Your task to perform on an android device: see creations saved in the google photos Image 0: 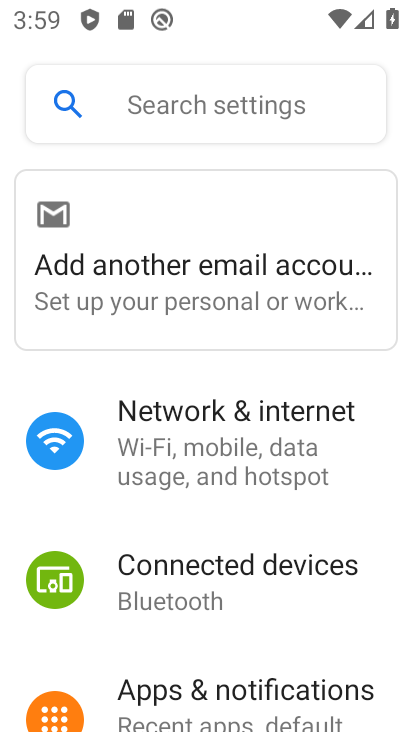
Step 0: press back button
Your task to perform on an android device: see creations saved in the google photos Image 1: 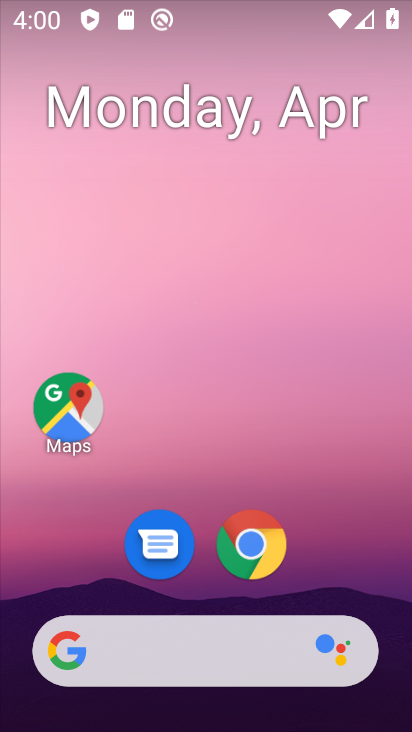
Step 1: drag from (129, 524) to (294, 1)
Your task to perform on an android device: see creations saved in the google photos Image 2: 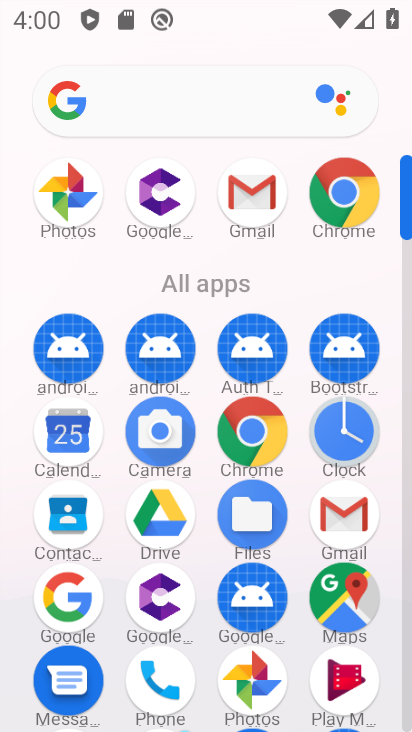
Step 2: click (266, 687)
Your task to perform on an android device: see creations saved in the google photos Image 3: 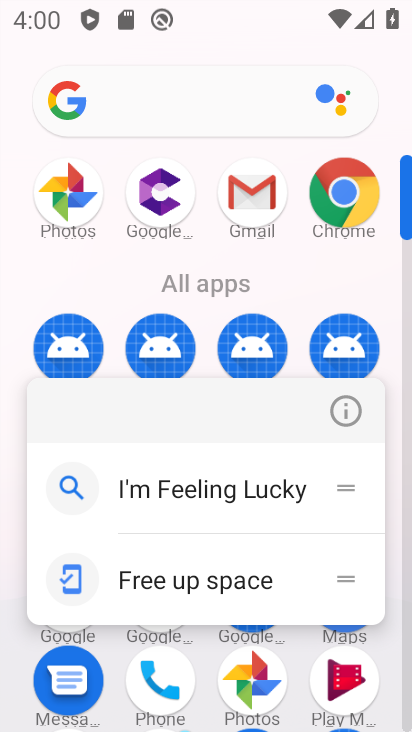
Step 3: click (237, 661)
Your task to perform on an android device: see creations saved in the google photos Image 4: 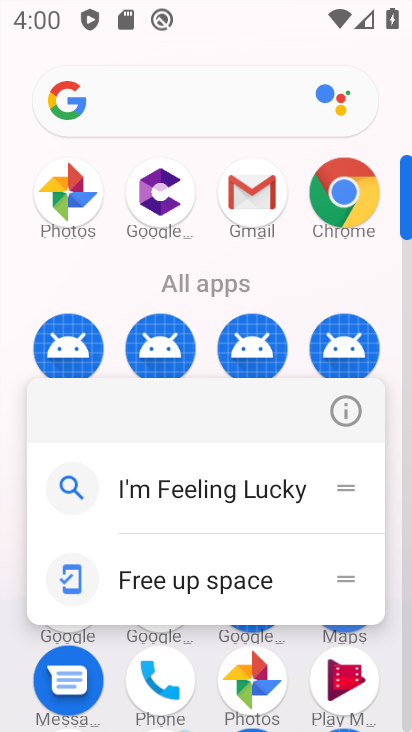
Step 4: click (260, 689)
Your task to perform on an android device: see creations saved in the google photos Image 5: 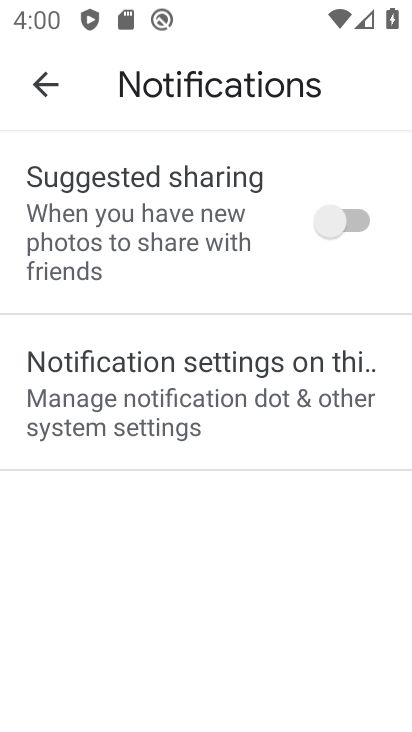
Step 5: click (54, 92)
Your task to perform on an android device: see creations saved in the google photos Image 6: 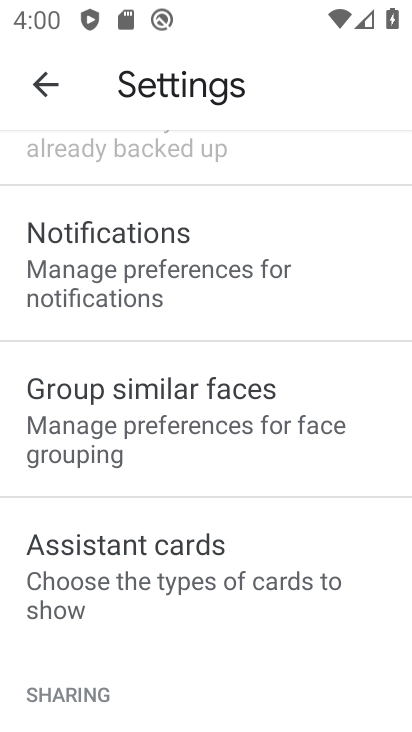
Step 6: click (57, 95)
Your task to perform on an android device: see creations saved in the google photos Image 7: 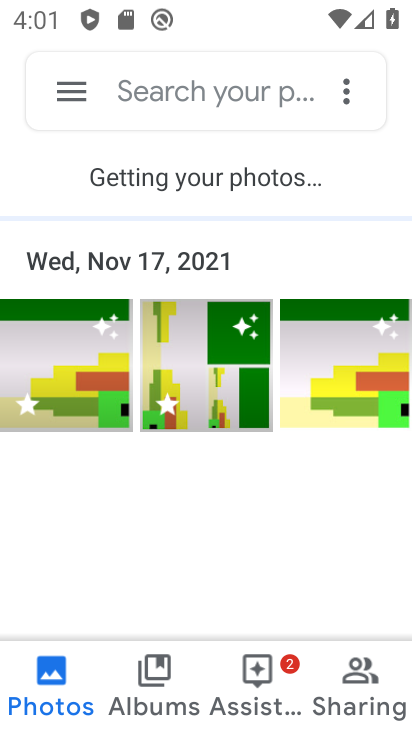
Step 7: click (169, 101)
Your task to perform on an android device: see creations saved in the google photos Image 8: 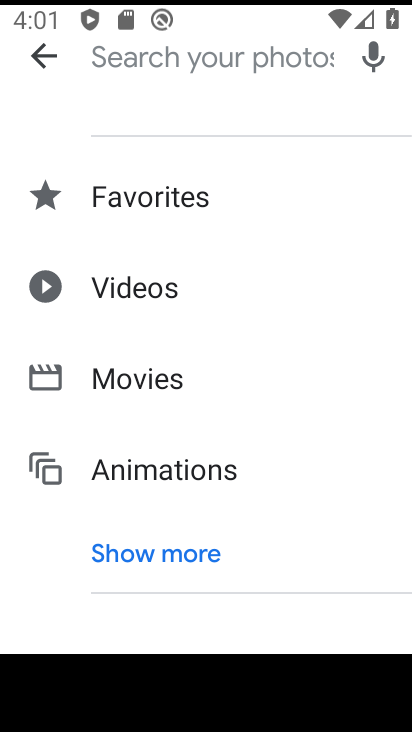
Step 8: click (187, 562)
Your task to perform on an android device: see creations saved in the google photos Image 9: 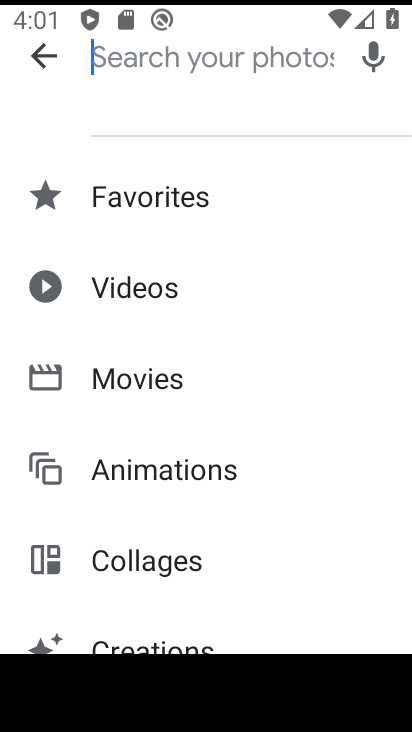
Step 9: drag from (189, 607) to (266, 278)
Your task to perform on an android device: see creations saved in the google photos Image 10: 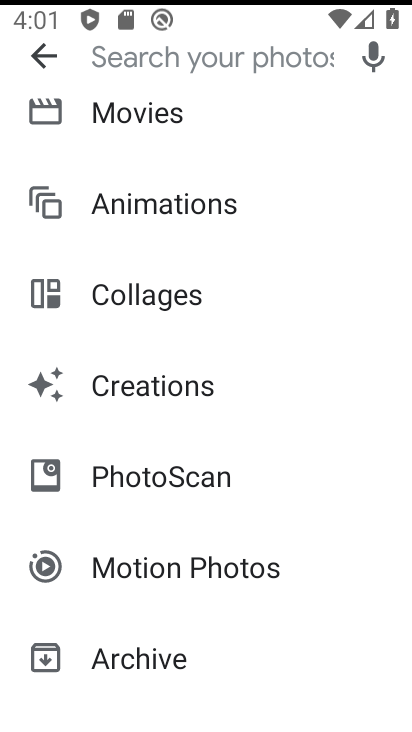
Step 10: click (185, 392)
Your task to perform on an android device: see creations saved in the google photos Image 11: 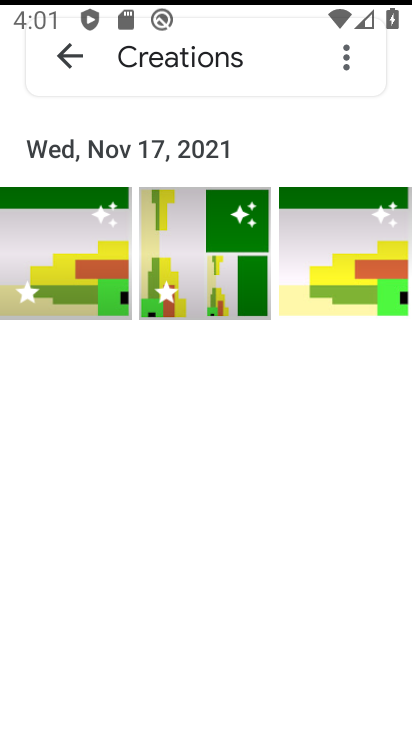
Step 11: task complete